Your task to perform on an android device: change text size in settings app Image 0: 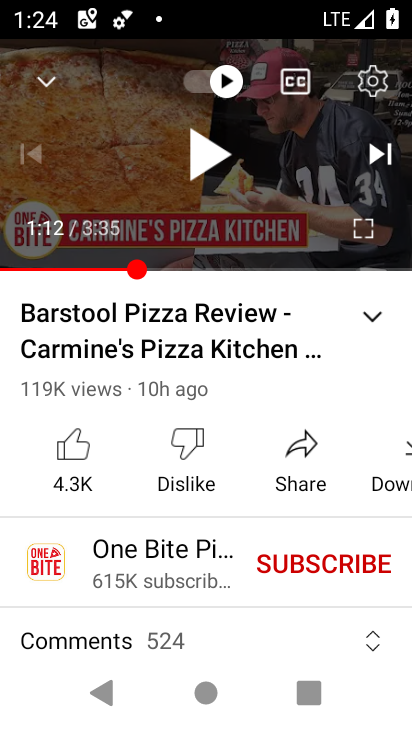
Step 0: press home button
Your task to perform on an android device: change text size in settings app Image 1: 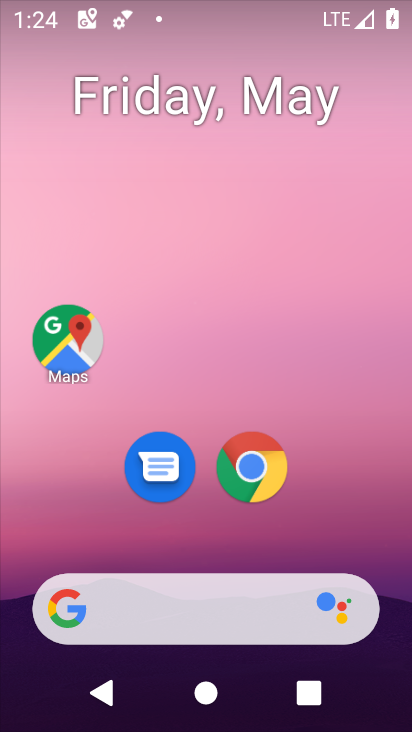
Step 1: drag from (338, 518) to (373, 34)
Your task to perform on an android device: change text size in settings app Image 2: 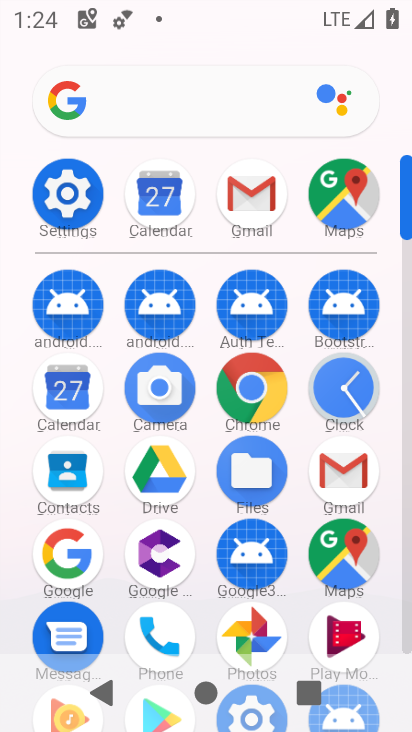
Step 2: click (67, 193)
Your task to perform on an android device: change text size in settings app Image 3: 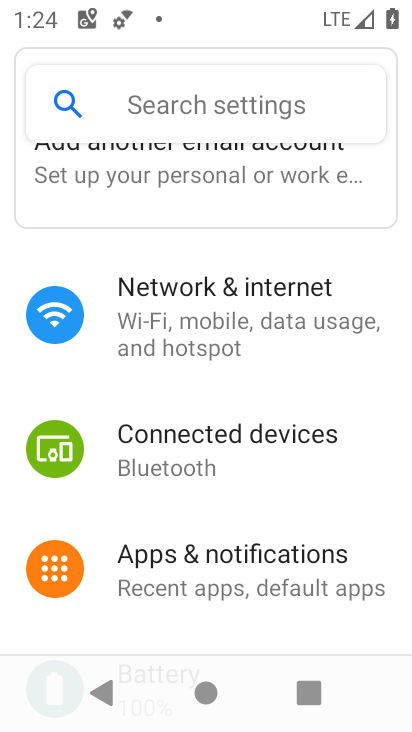
Step 3: drag from (248, 531) to (274, 202)
Your task to perform on an android device: change text size in settings app Image 4: 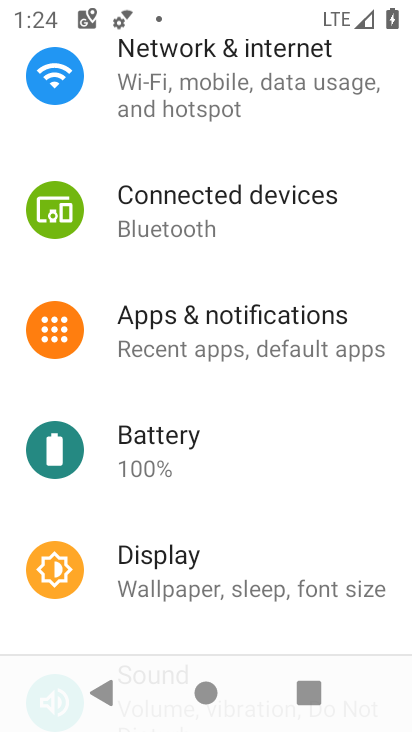
Step 4: drag from (216, 539) to (242, 224)
Your task to perform on an android device: change text size in settings app Image 5: 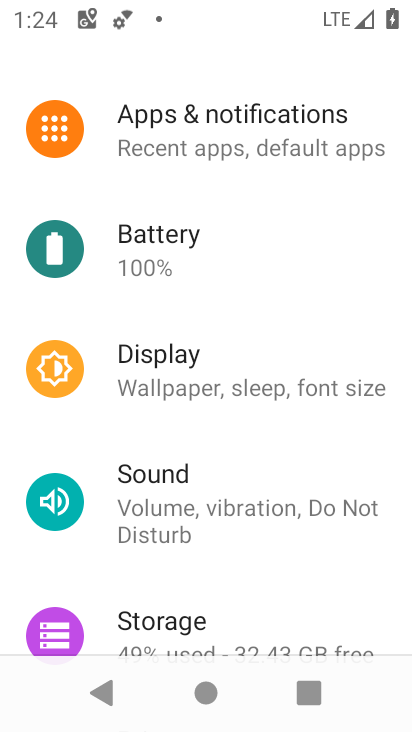
Step 5: click (270, 380)
Your task to perform on an android device: change text size in settings app Image 6: 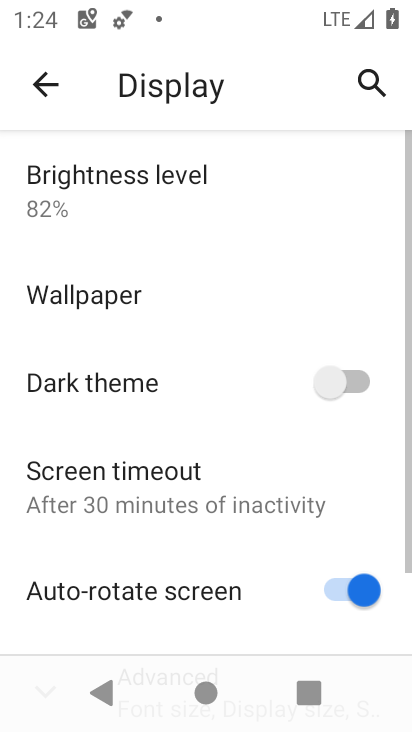
Step 6: drag from (186, 596) to (246, 195)
Your task to perform on an android device: change text size in settings app Image 7: 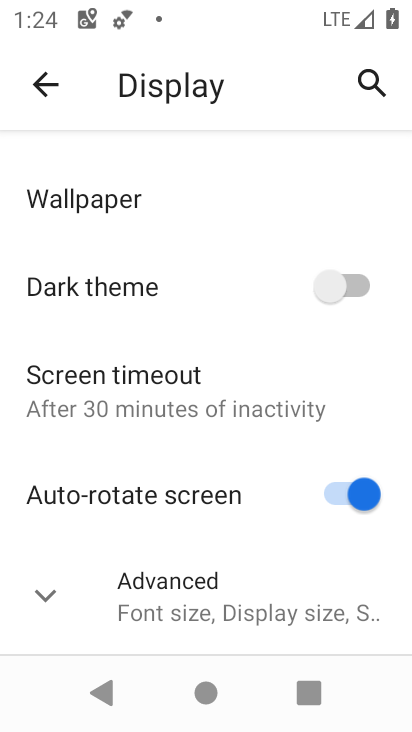
Step 7: click (159, 594)
Your task to perform on an android device: change text size in settings app Image 8: 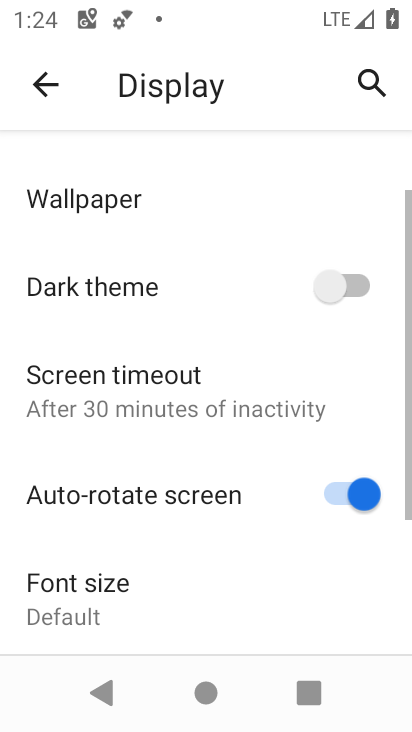
Step 8: drag from (201, 392) to (222, 208)
Your task to perform on an android device: change text size in settings app Image 9: 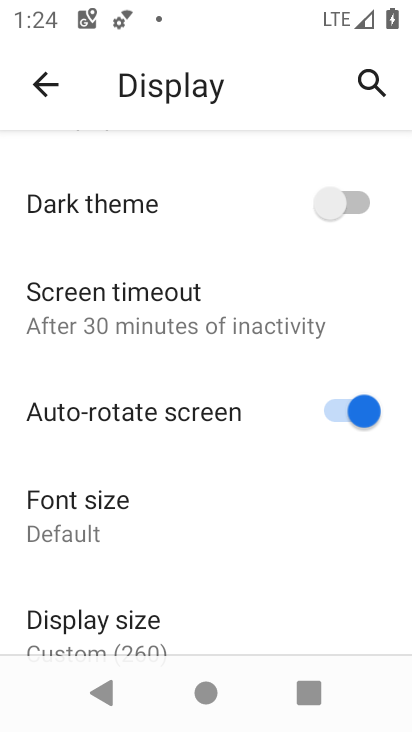
Step 9: click (69, 540)
Your task to perform on an android device: change text size in settings app Image 10: 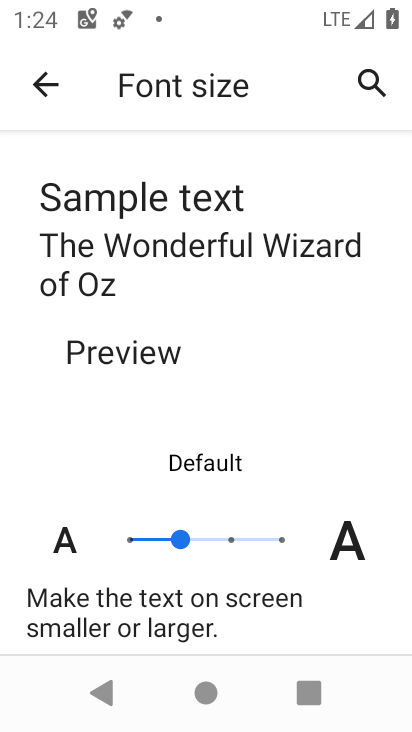
Step 10: click (224, 542)
Your task to perform on an android device: change text size in settings app Image 11: 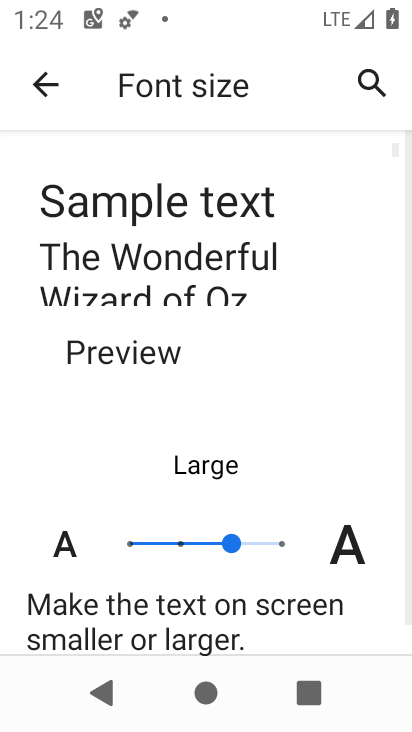
Step 11: task complete